Your task to perform on an android device: Open the calendar app, open the side menu, and click the "Day" option Image 0: 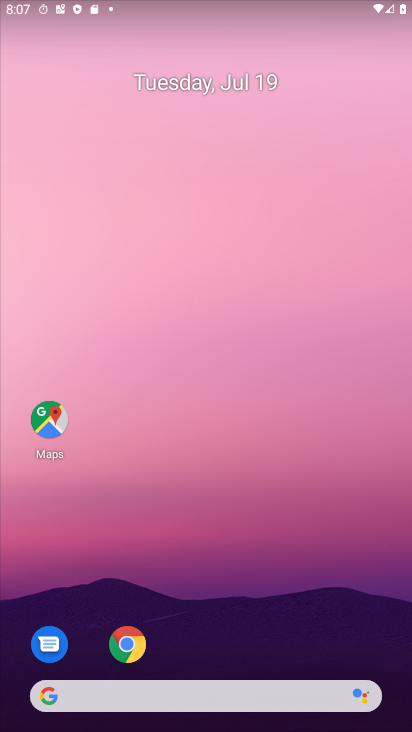
Step 0: drag from (17, 659) to (191, 179)
Your task to perform on an android device: Open the calendar app, open the side menu, and click the "Day" option Image 1: 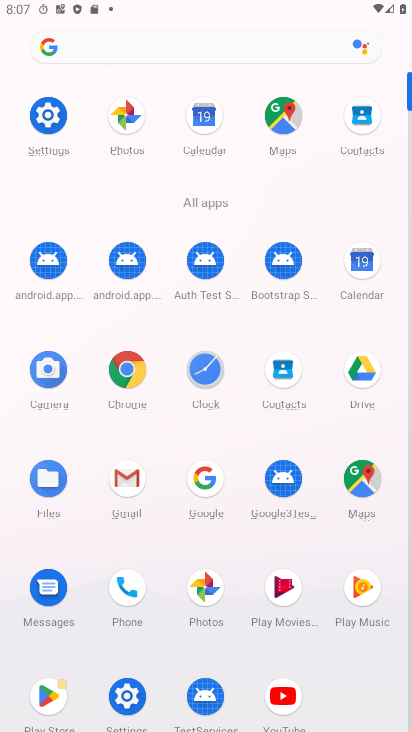
Step 1: click (356, 264)
Your task to perform on an android device: Open the calendar app, open the side menu, and click the "Day" option Image 2: 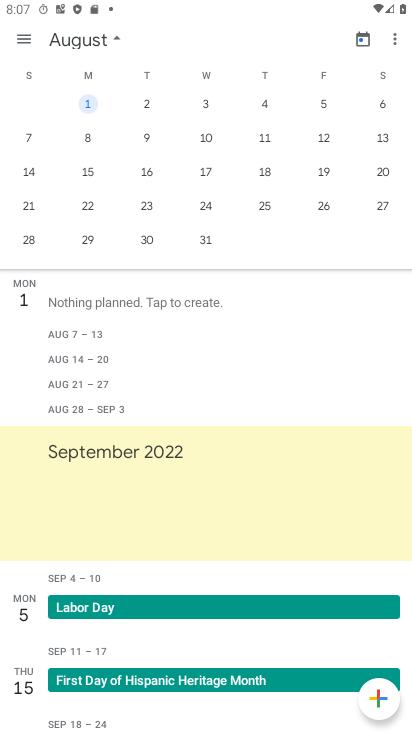
Step 2: drag from (11, 109) to (379, 173)
Your task to perform on an android device: Open the calendar app, open the side menu, and click the "Day" option Image 3: 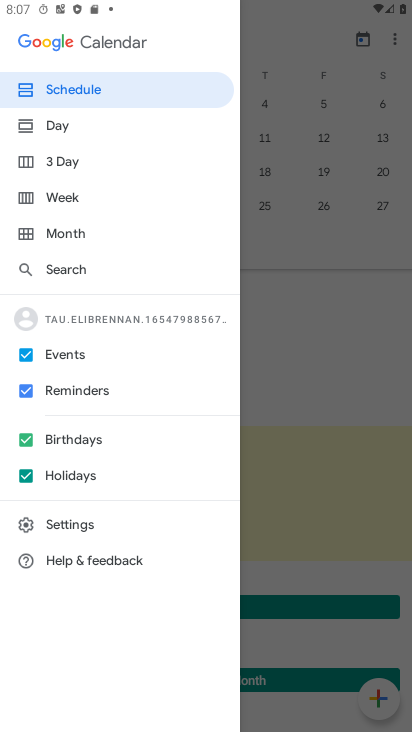
Step 3: click (321, 319)
Your task to perform on an android device: Open the calendar app, open the side menu, and click the "Day" option Image 4: 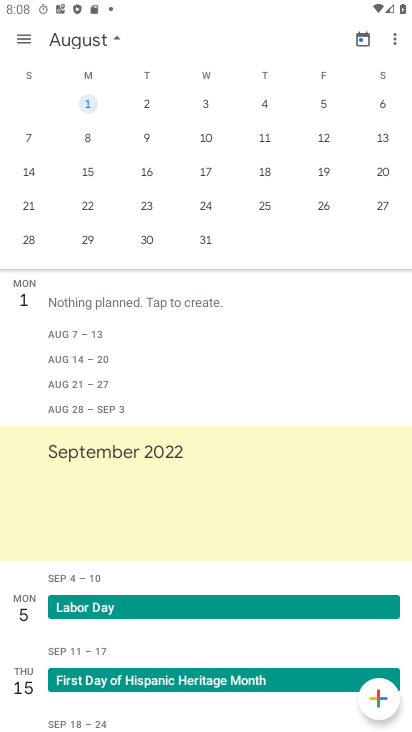
Step 4: drag from (16, 148) to (409, 196)
Your task to perform on an android device: Open the calendar app, open the side menu, and click the "Day" option Image 5: 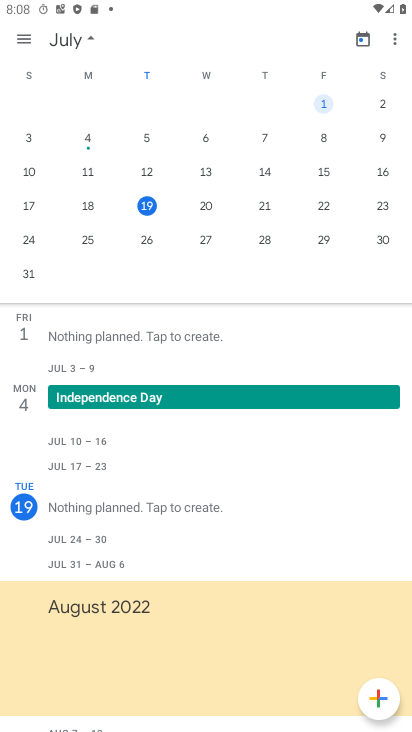
Step 5: click (21, 42)
Your task to perform on an android device: Open the calendar app, open the side menu, and click the "Day" option Image 6: 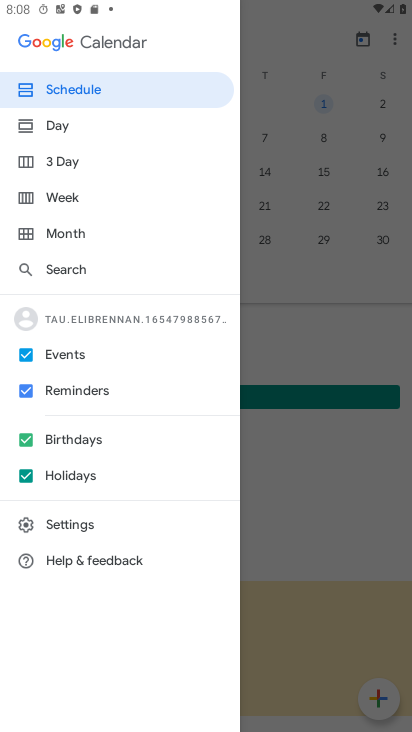
Step 6: click (75, 120)
Your task to perform on an android device: Open the calendar app, open the side menu, and click the "Day" option Image 7: 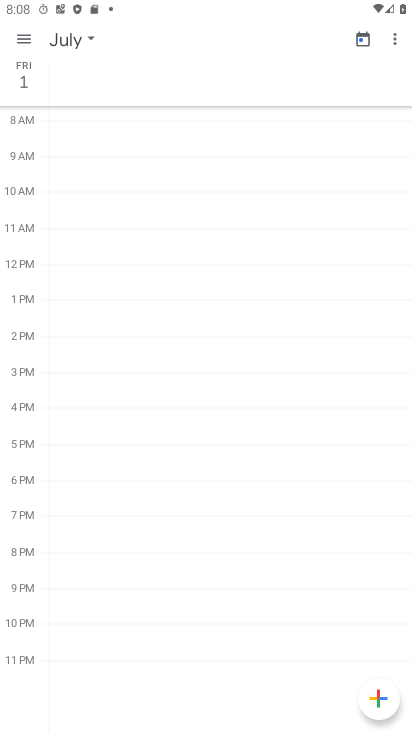
Step 7: task complete